Your task to perform on an android device: open app "DuckDuckGo Privacy Browser" Image 0: 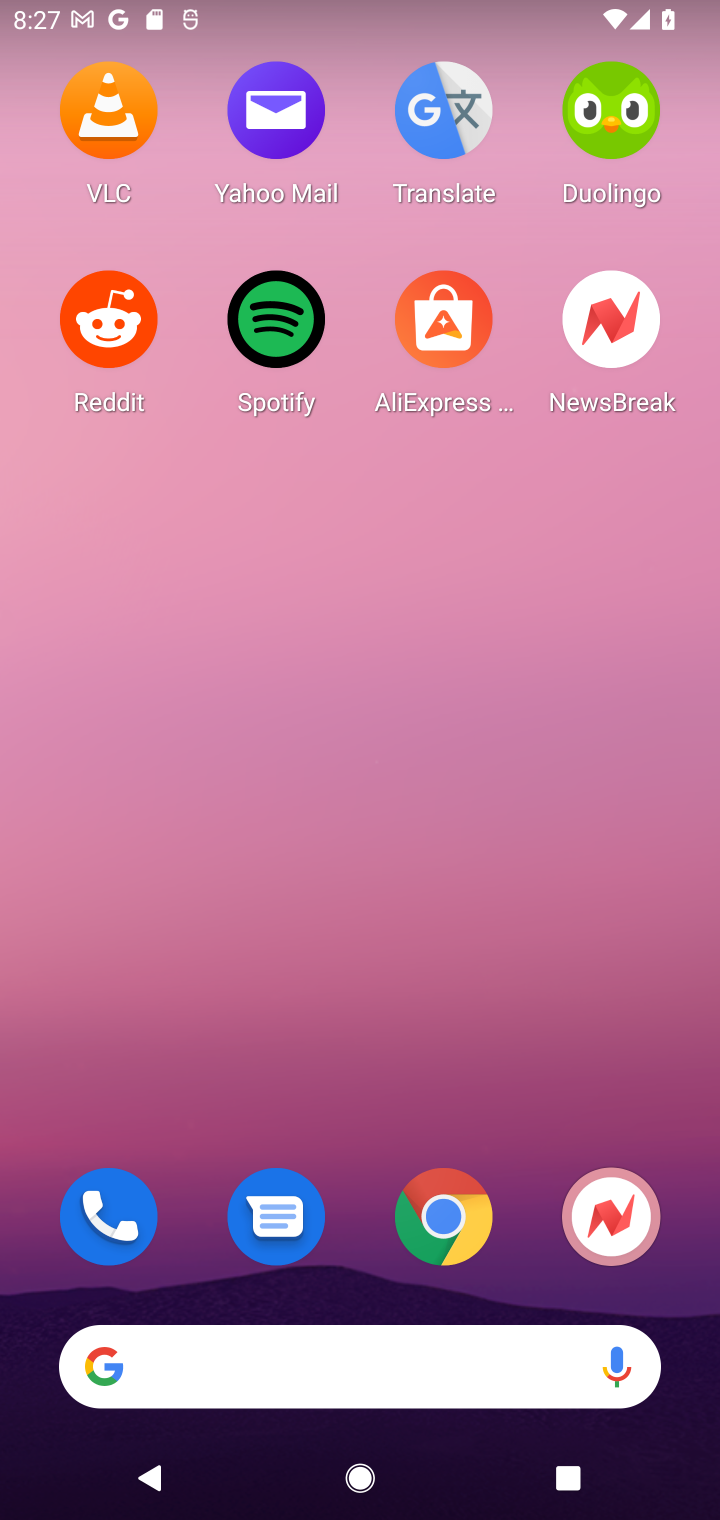
Step 0: press home button
Your task to perform on an android device: open app "DuckDuckGo Privacy Browser" Image 1: 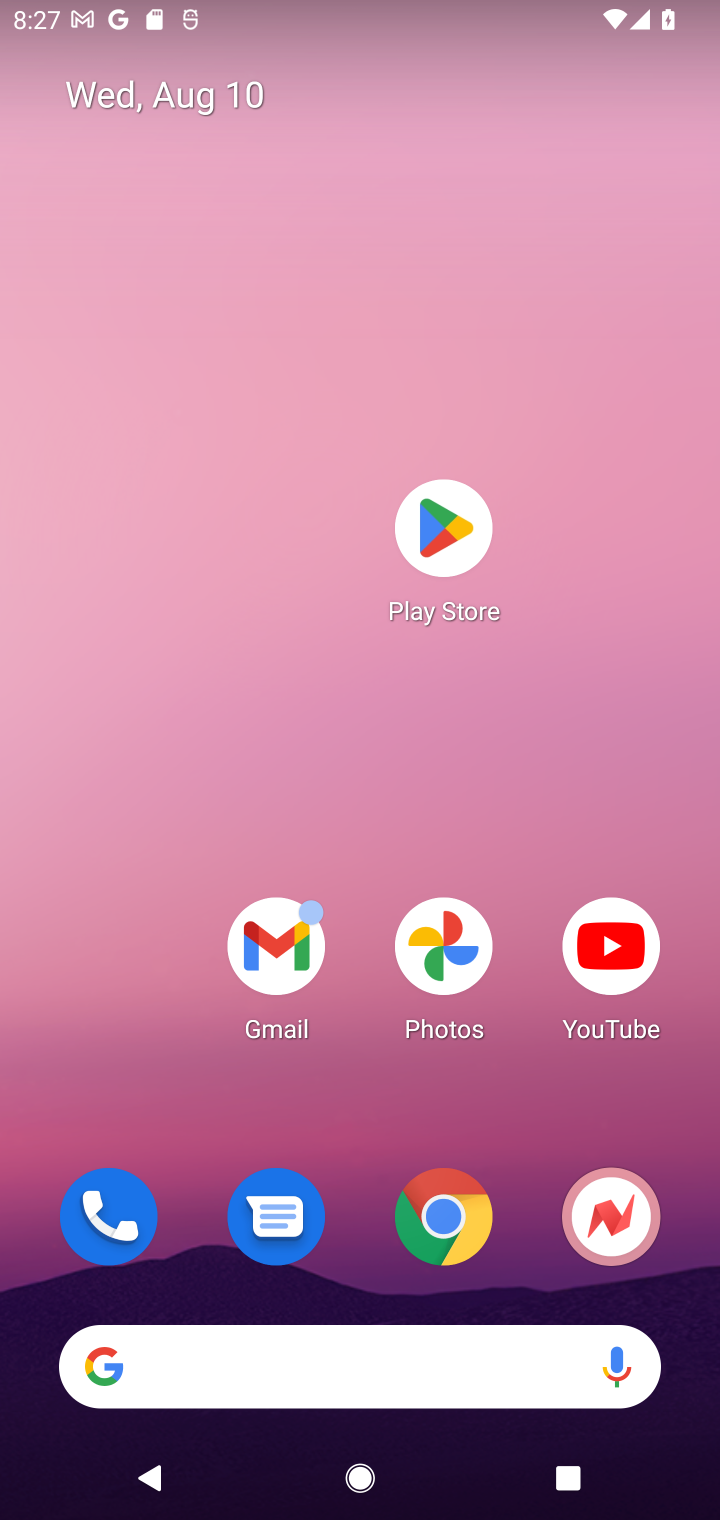
Step 1: click (440, 531)
Your task to perform on an android device: open app "DuckDuckGo Privacy Browser" Image 2: 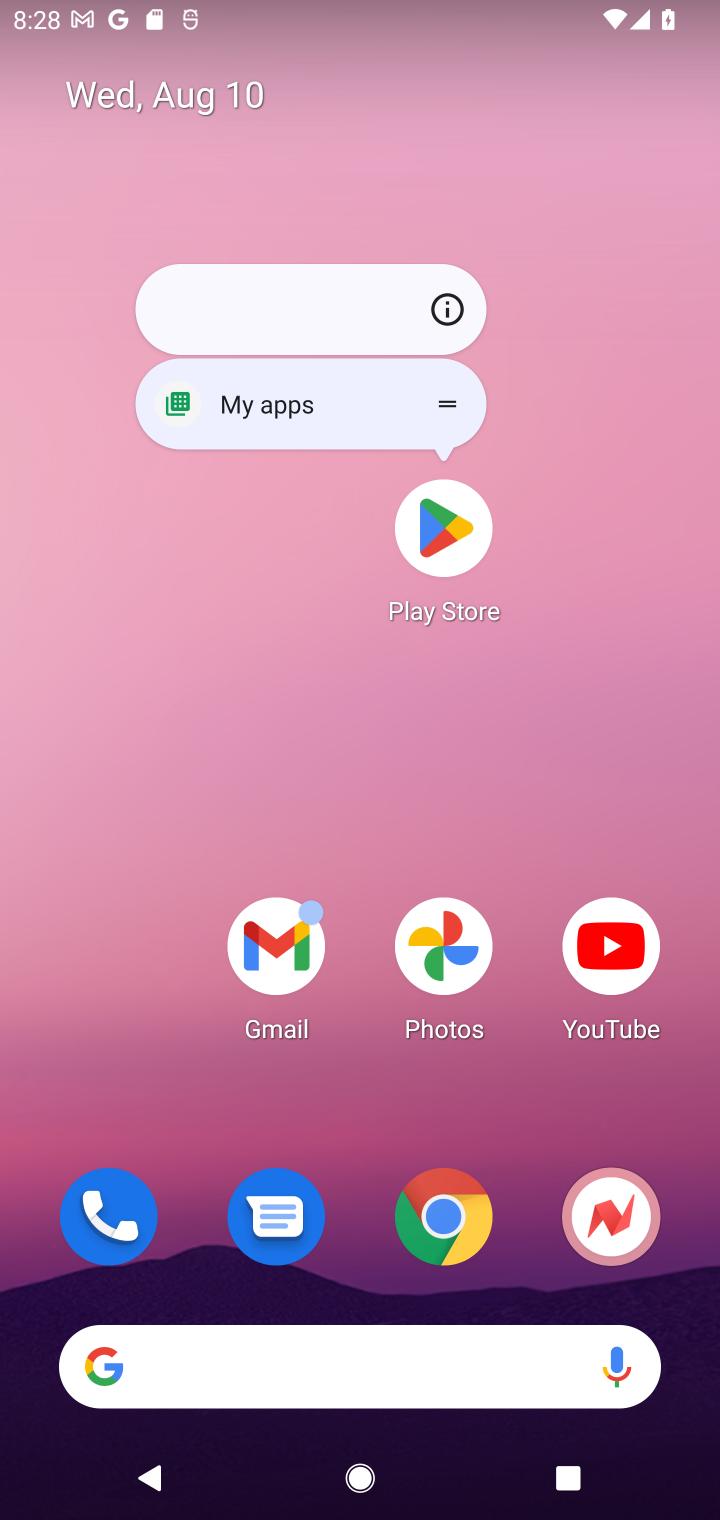
Step 2: click (442, 531)
Your task to perform on an android device: open app "DuckDuckGo Privacy Browser" Image 3: 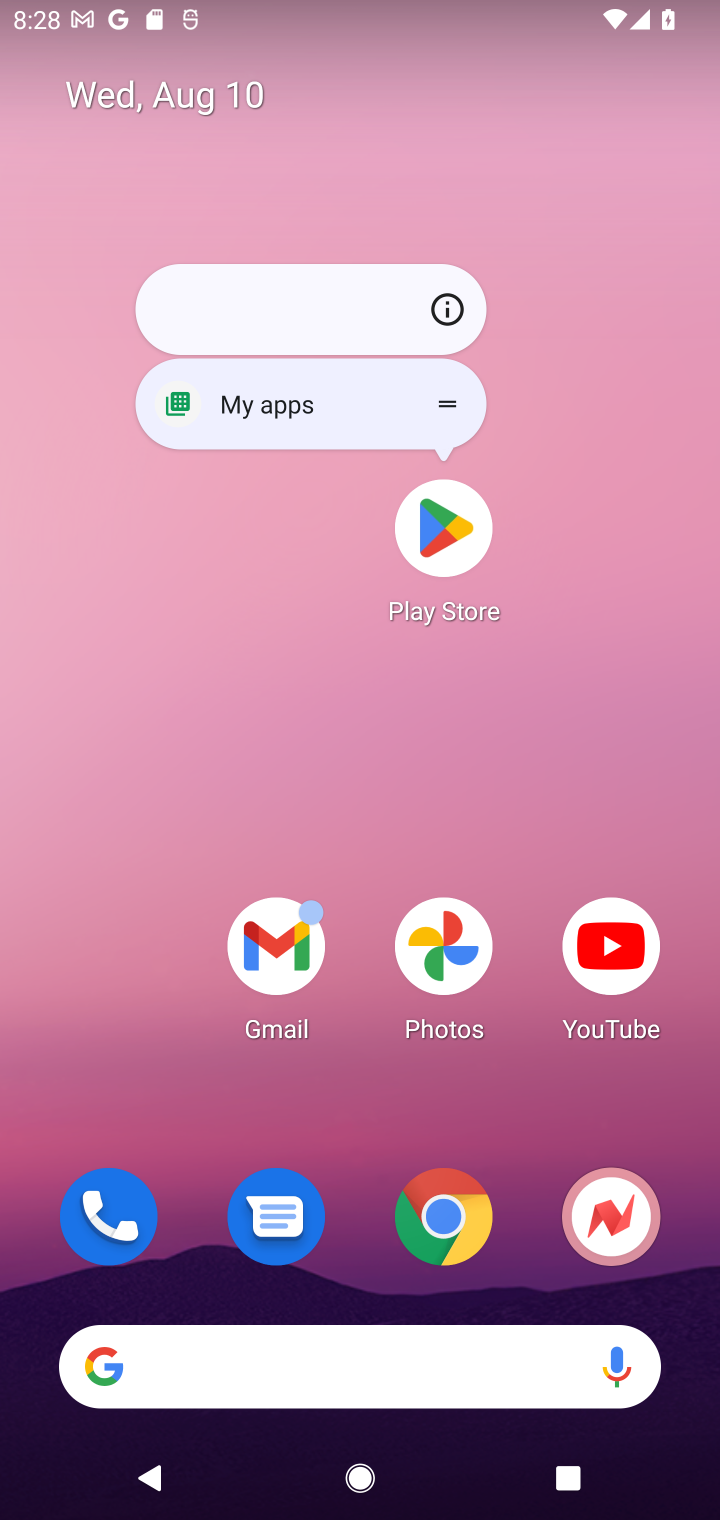
Step 3: click (442, 529)
Your task to perform on an android device: open app "DuckDuckGo Privacy Browser" Image 4: 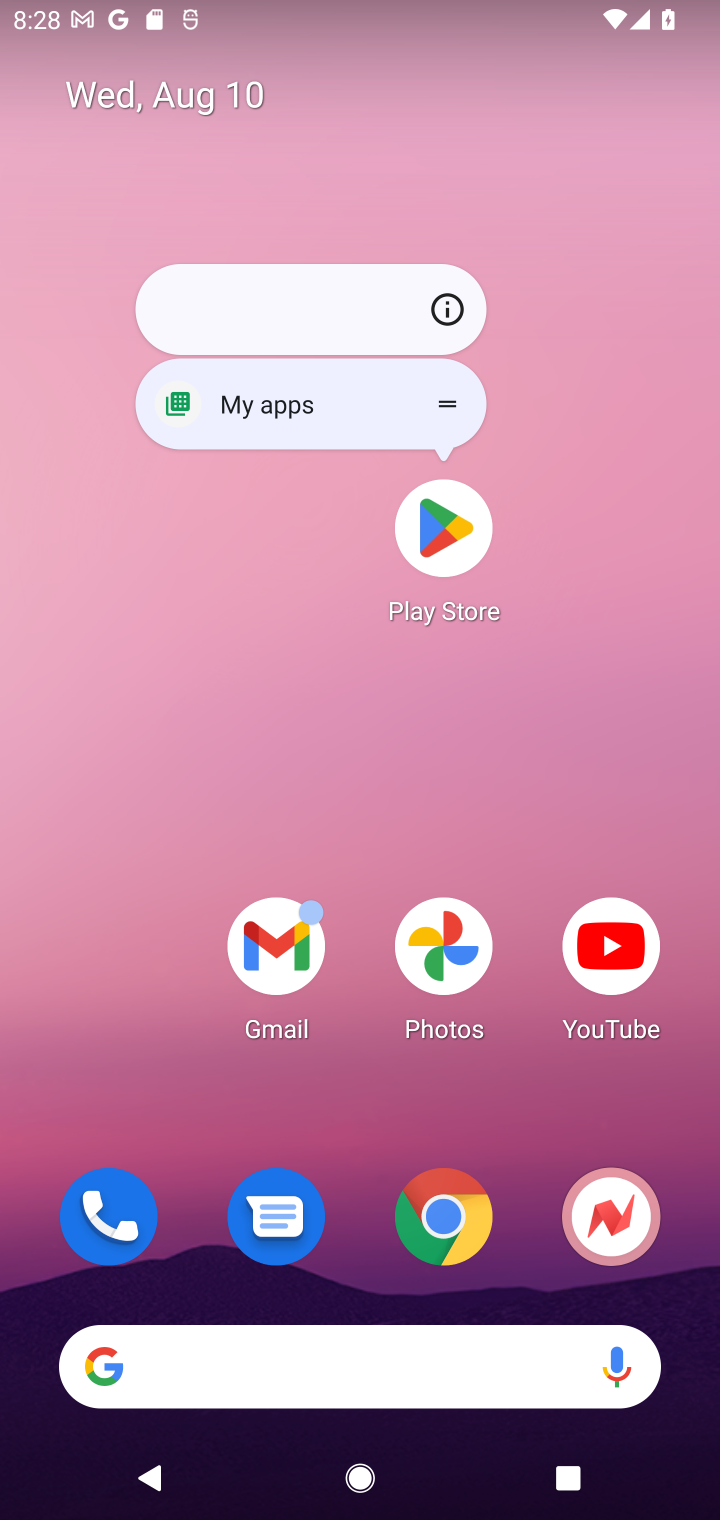
Step 4: click (442, 528)
Your task to perform on an android device: open app "DuckDuckGo Privacy Browser" Image 5: 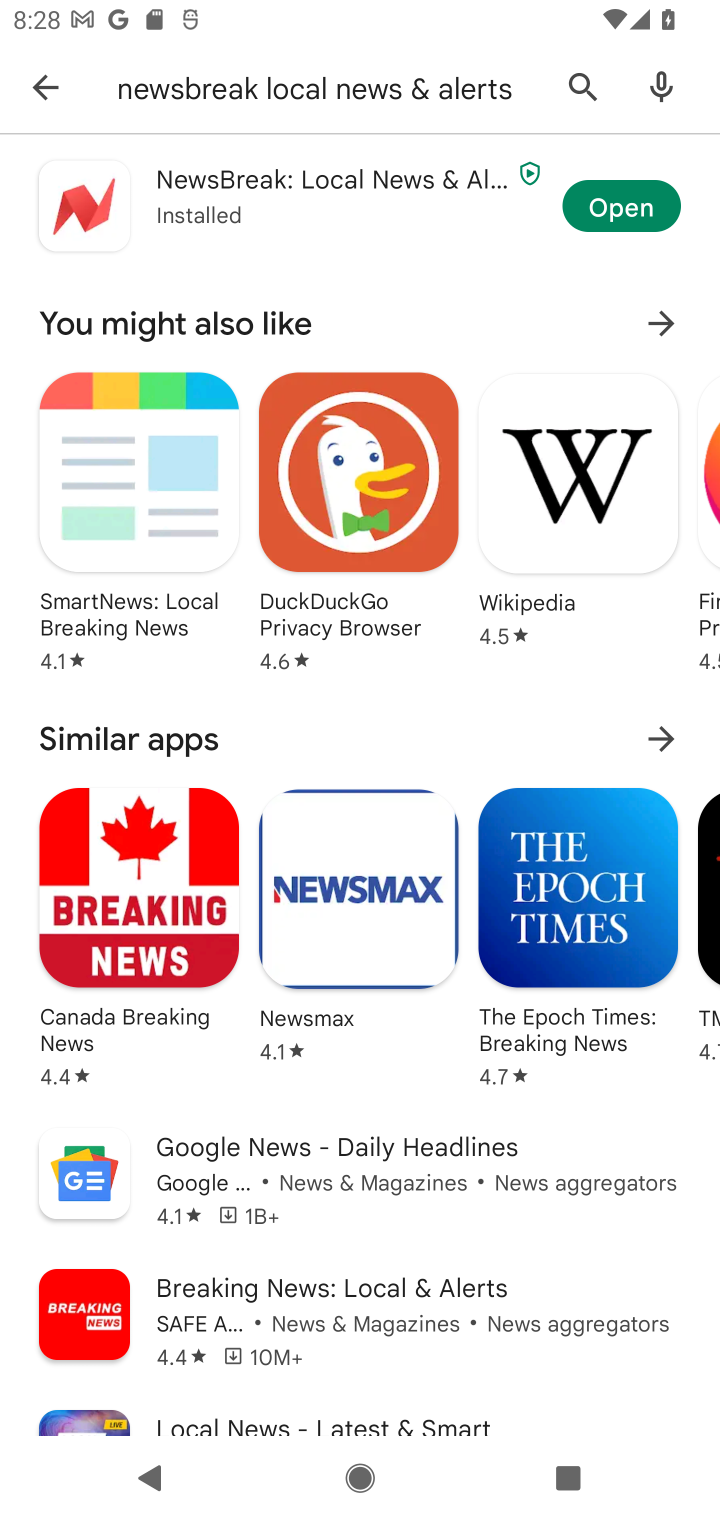
Step 5: click (577, 76)
Your task to perform on an android device: open app "DuckDuckGo Privacy Browser" Image 6: 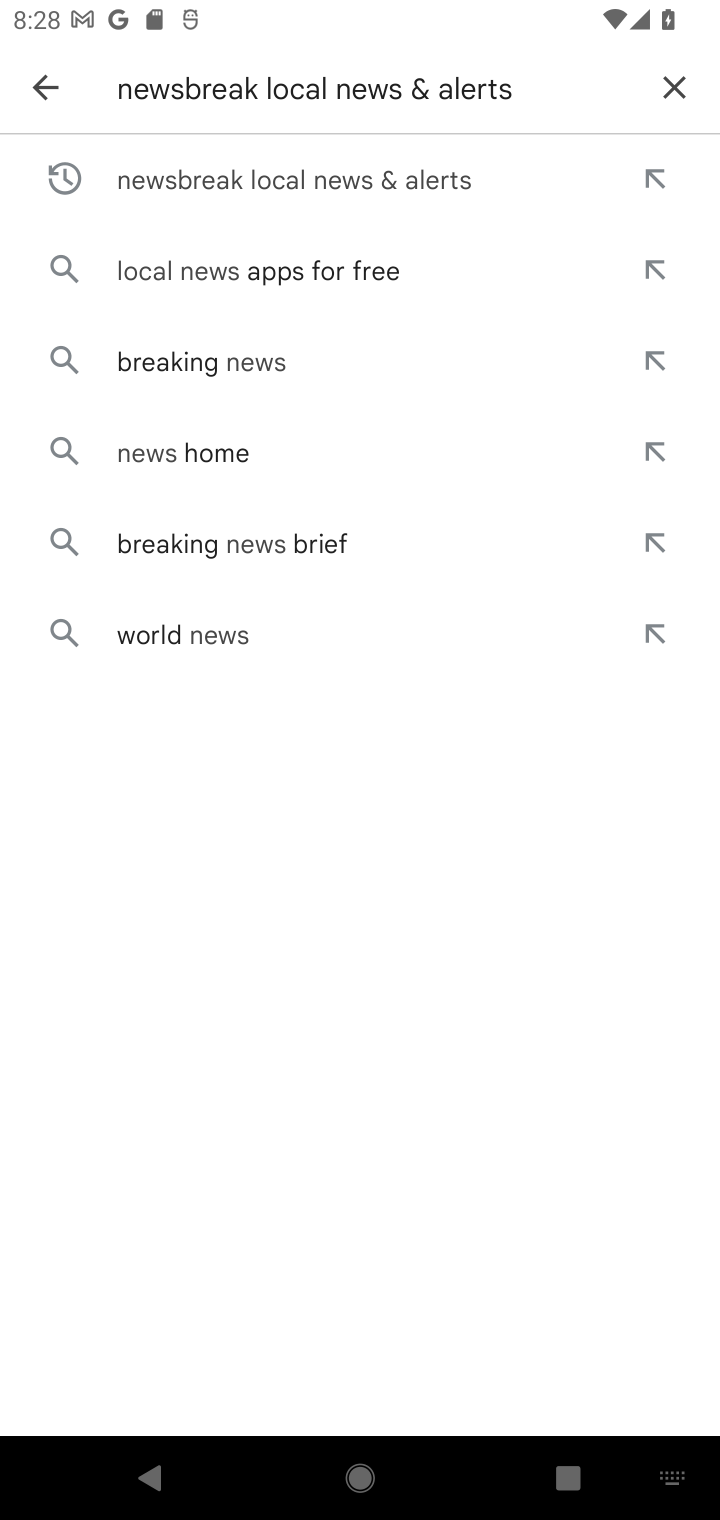
Step 6: click (669, 73)
Your task to perform on an android device: open app "DuckDuckGo Privacy Browser" Image 7: 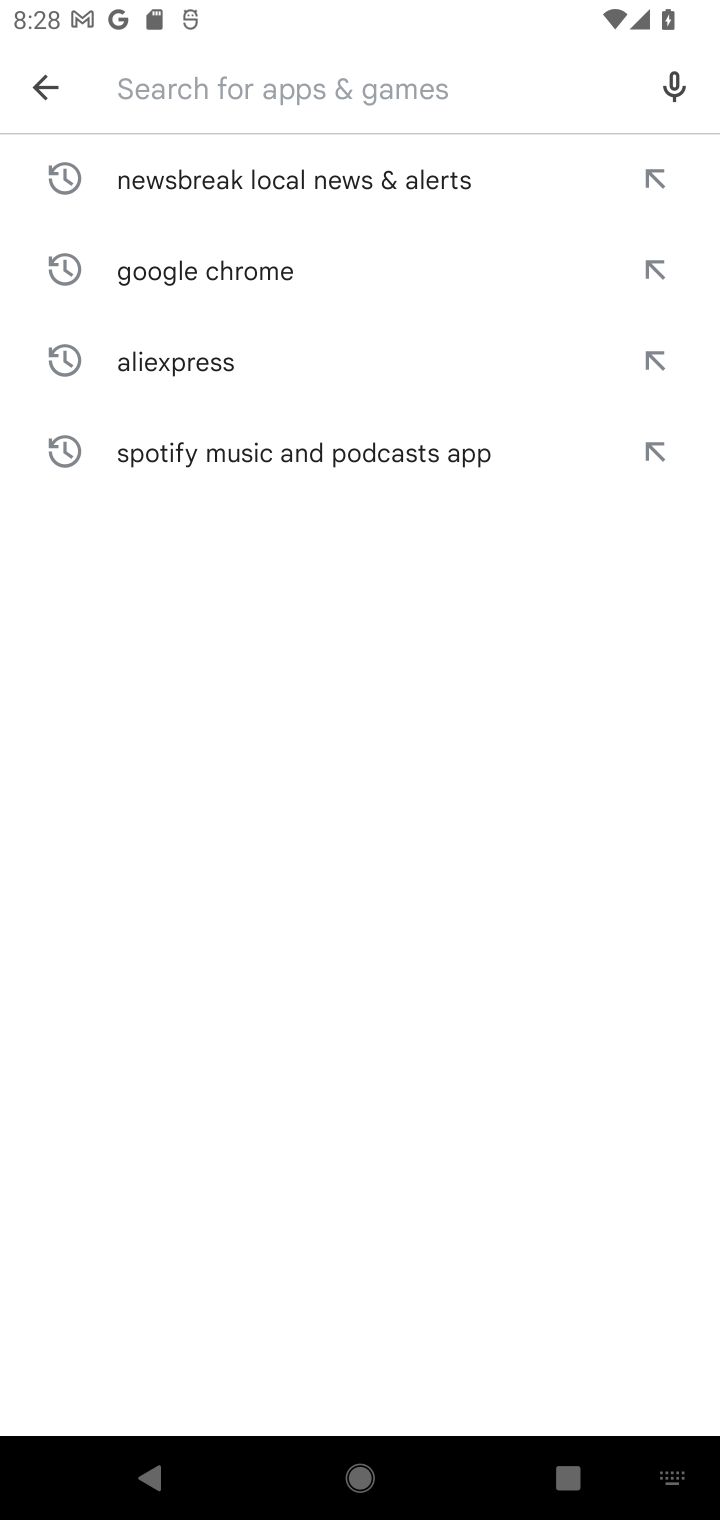
Step 7: type "DuckDuckGo Privacy Browser"
Your task to perform on an android device: open app "DuckDuckGo Privacy Browser" Image 8: 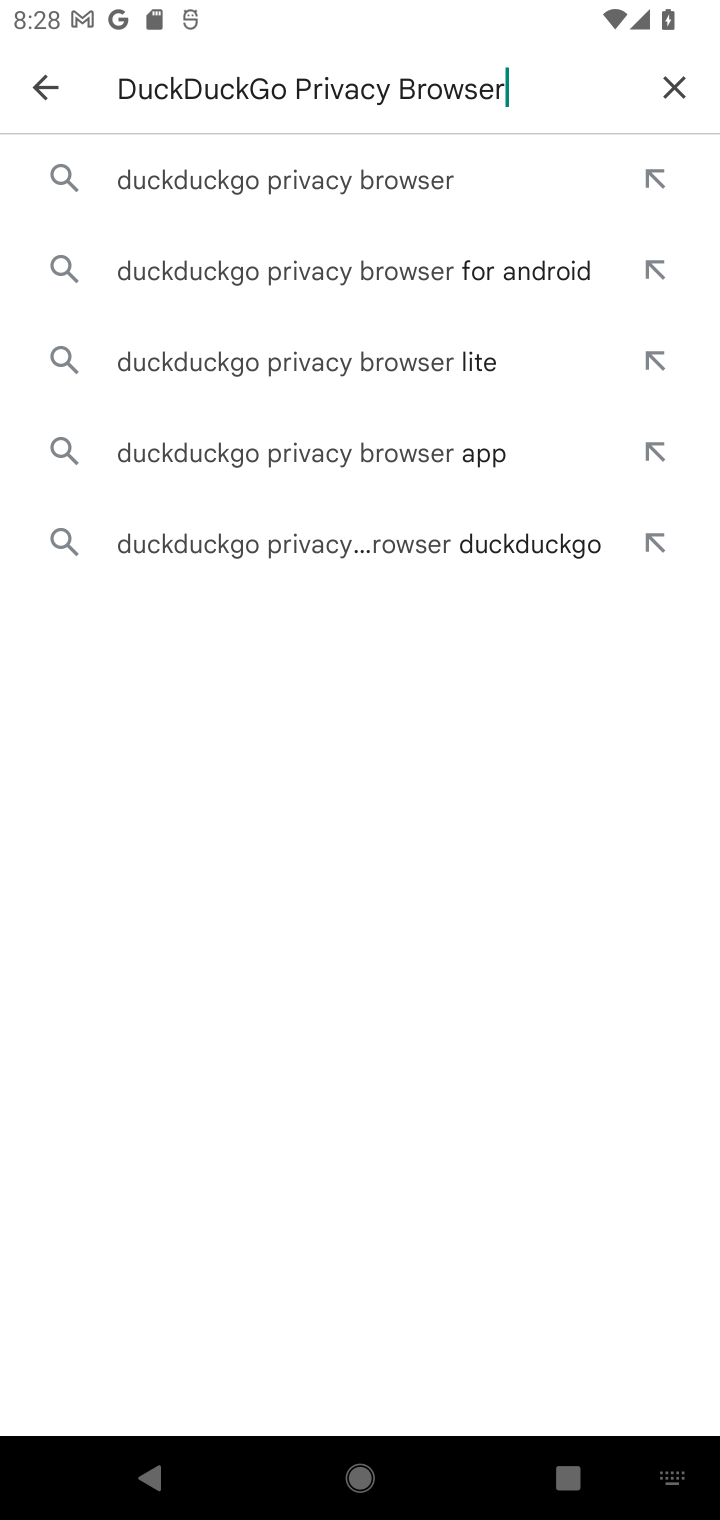
Step 8: click (277, 170)
Your task to perform on an android device: open app "DuckDuckGo Privacy Browser" Image 9: 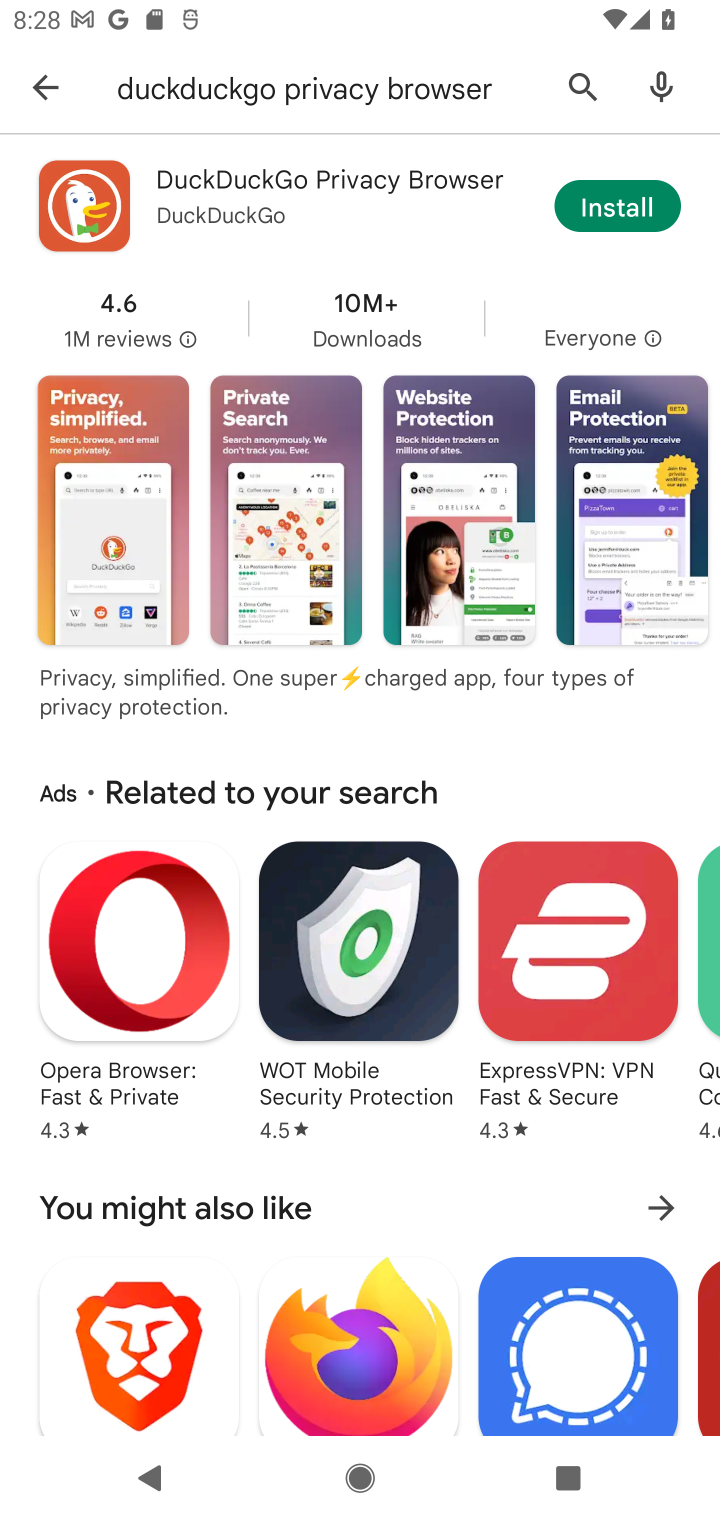
Step 9: task complete